Your task to perform on an android device: Open Chrome and go to settings Image 0: 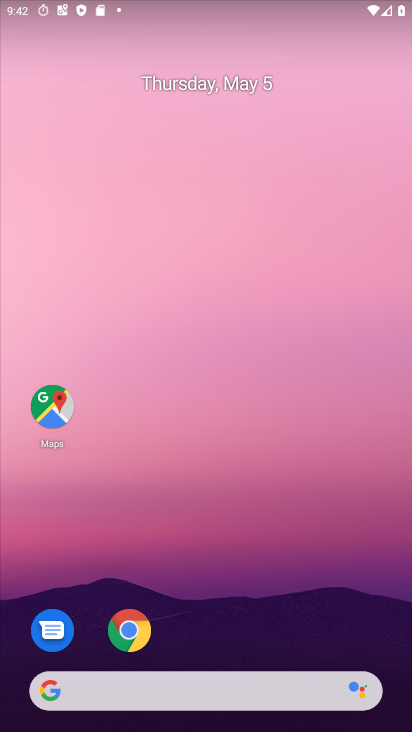
Step 0: drag from (228, 622) to (54, 171)
Your task to perform on an android device: Open Chrome and go to settings Image 1: 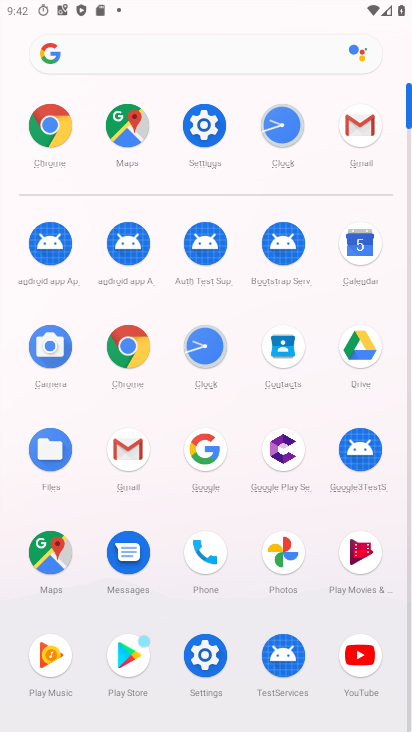
Step 1: click (130, 357)
Your task to perform on an android device: Open Chrome and go to settings Image 2: 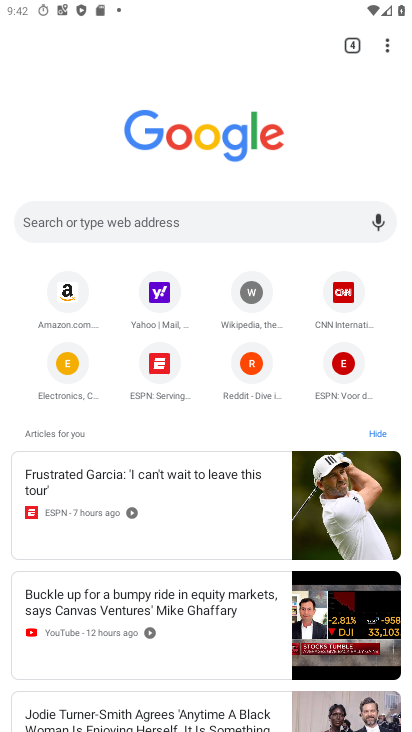
Step 2: task complete